Your task to perform on an android device: Open Google Chrome and click the shortcut for Amazon.com Image 0: 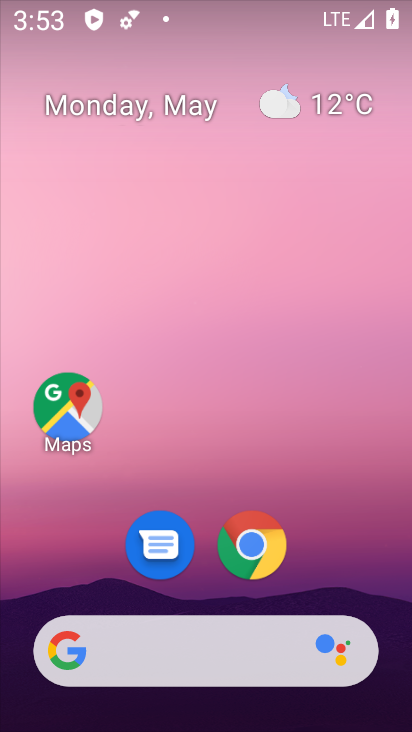
Step 0: click (254, 543)
Your task to perform on an android device: Open Google Chrome and click the shortcut for Amazon.com Image 1: 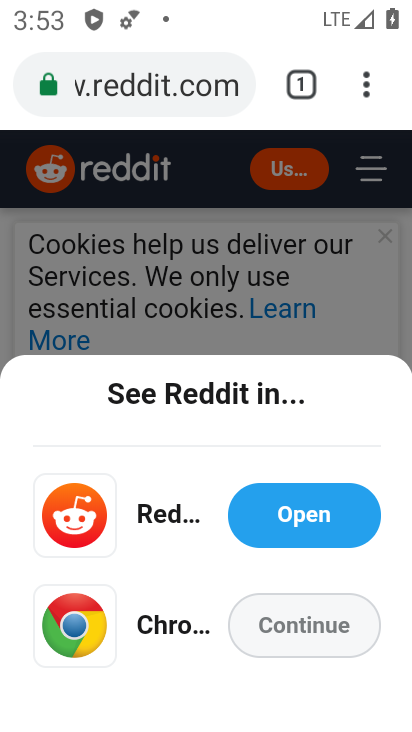
Step 1: click (364, 89)
Your task to perform on an android device: Open Google Chrome and click the shortcut for Amazon.com Image 2: 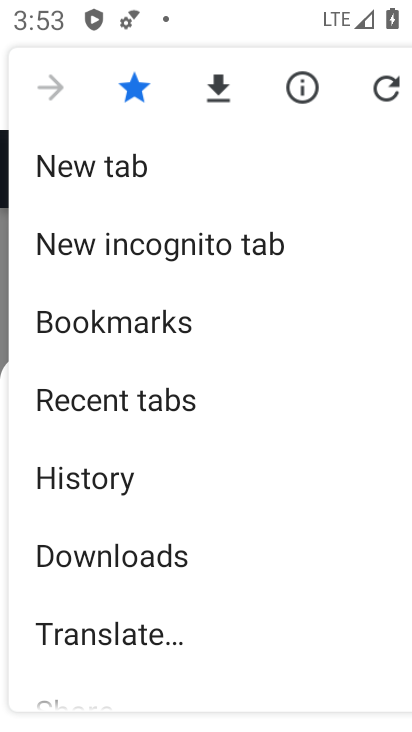
Step 2: click (94, 179)
Your task to perform on an android device: Open Google Chrome and click the shortcut for Amazon.com Image 3: 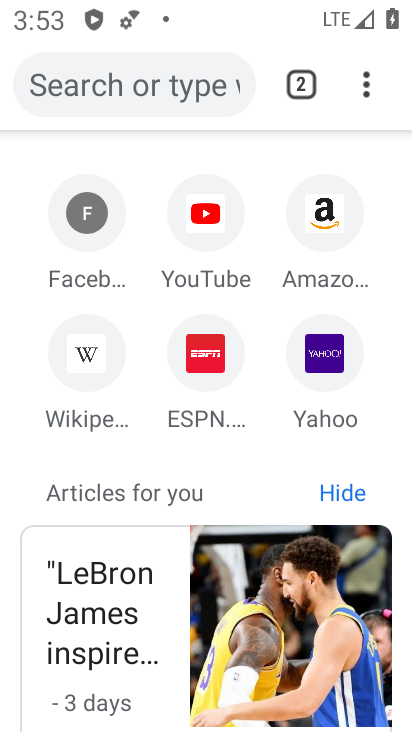
Step 3: click (325, 213)
Your task to perform on an android device: Open Google Chrome and click the shortcut for Amazon.com Image 4: 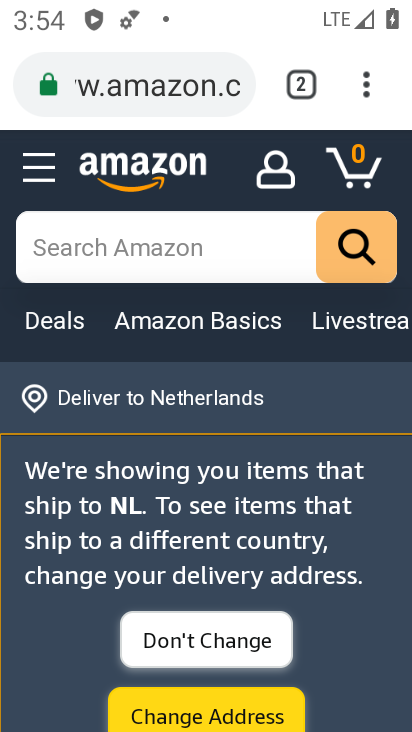
Step 4: task complete